Your task to perform on an android device: check storage Image 0: 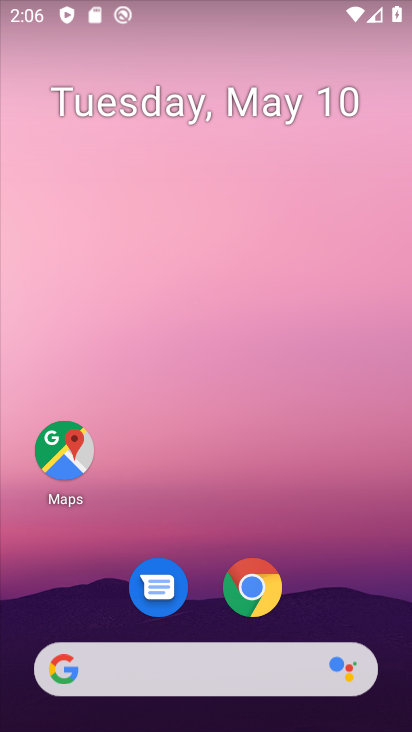
Step 0: drag from (104, 637) to (253, 43)
Your task to perform on an android device: check storage Image 1: 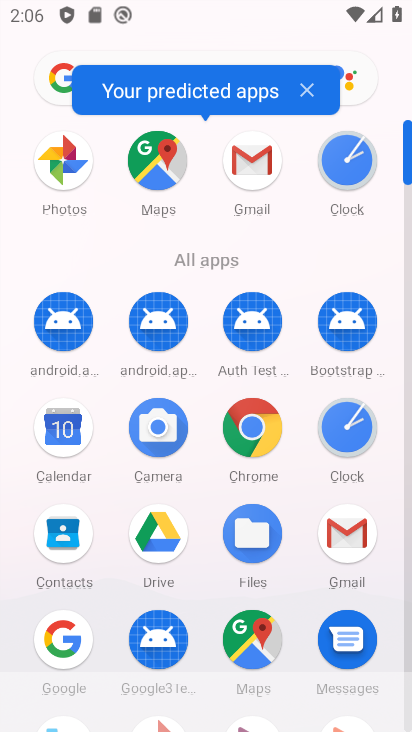
Step 1: drag from (152, 641) to (224, 374)
Your task to perform on an android device: check storage Image 2: 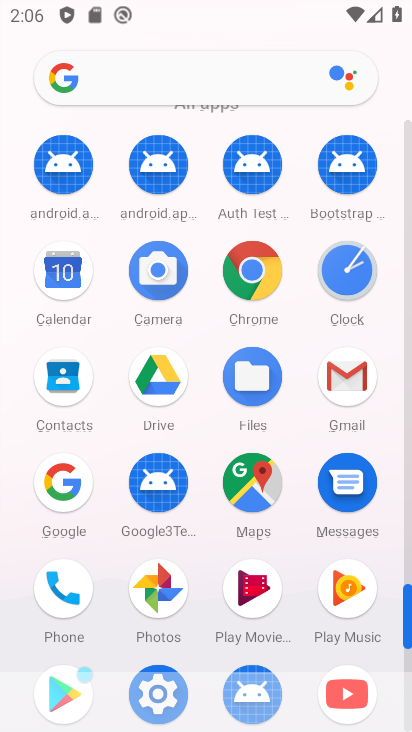
Step 2: click (177, 680)
Your task to perform on an android device: check storage Image 3: 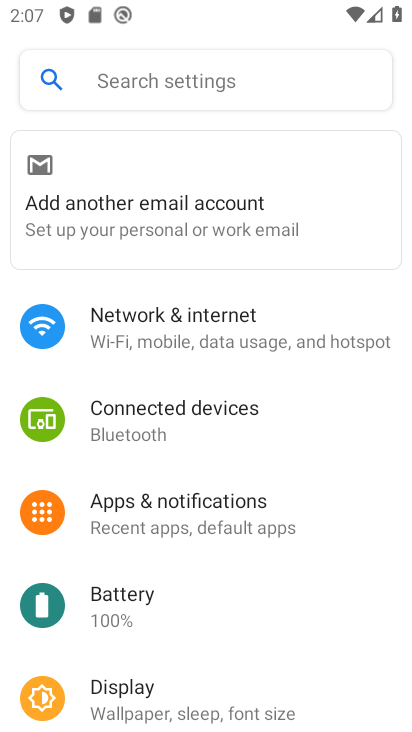
Step 3: drag from (215, 630) to (295, 321)
Your task to perform on an android device: check storage Image 4: 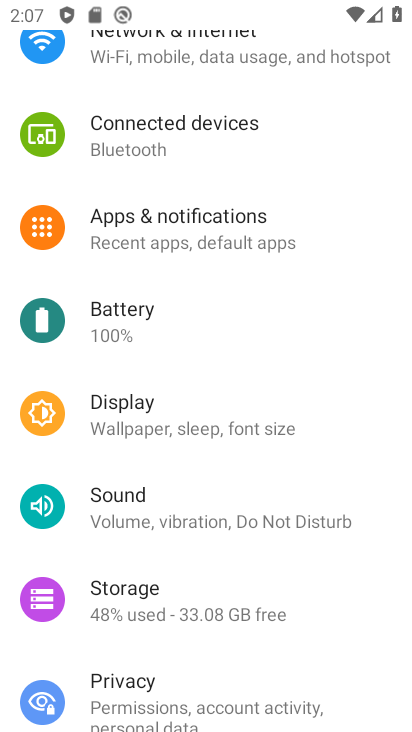
Step 4: click (154, 598)
Your task to perform on an android device: check storage Image 5: 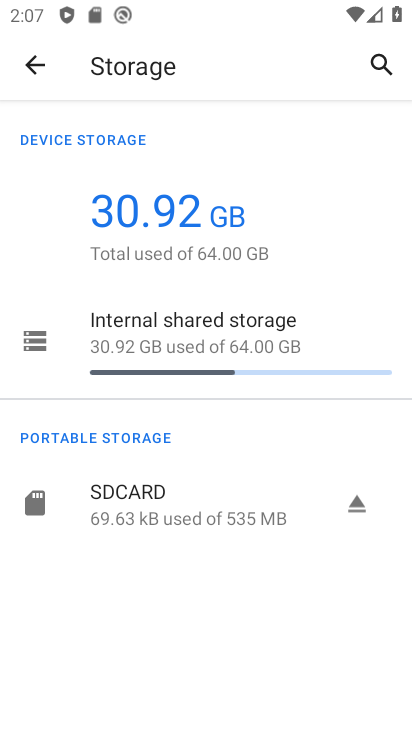
Step 5: click (247, 339)
Your task to perform on an android device: check storage Image 6: 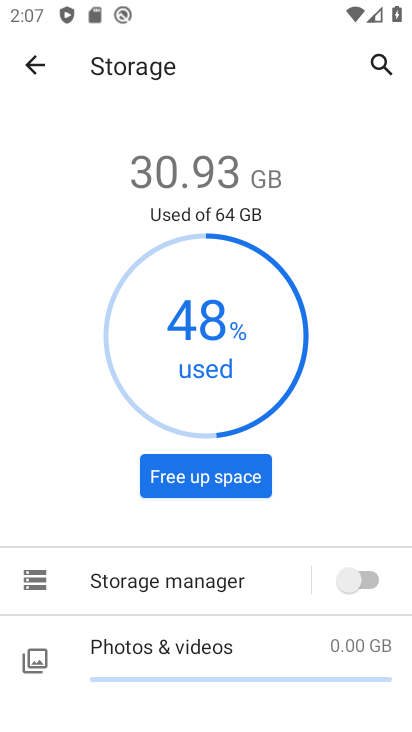
Step 6: task complete